Your task to perform on an android device: Go to Maps Image 0: 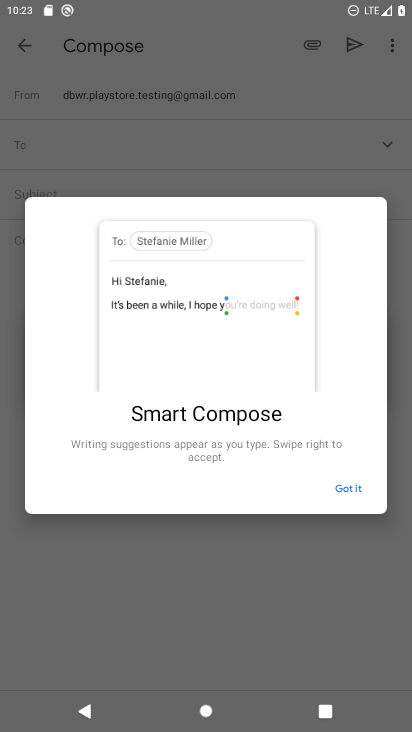
Step 0: press home button
Your task to perform on an android device: Go to Maps Image 1: 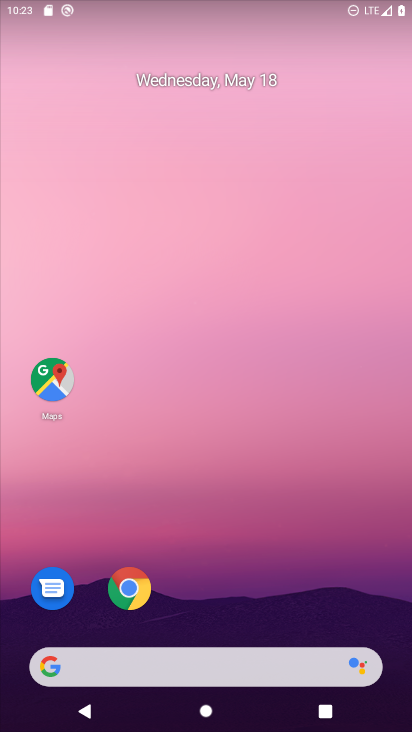
Step 1: click (48, 378)
Your task to perform on an android device: Go to Maps Image 2: 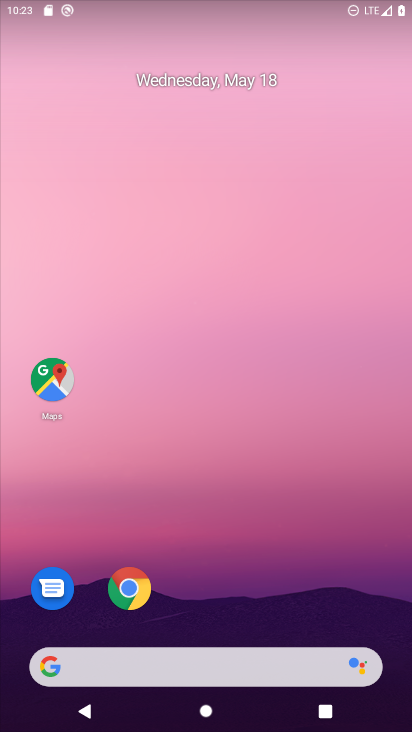
Step 2: click (48, 378)
Your task to perform on an android device: Go to Maps Image 3: 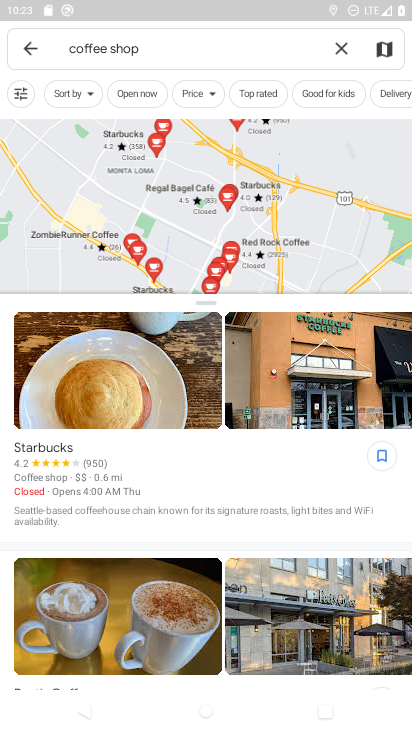
Step 3: task complete